Your task to perform on an android device: Open eBay Image 0: 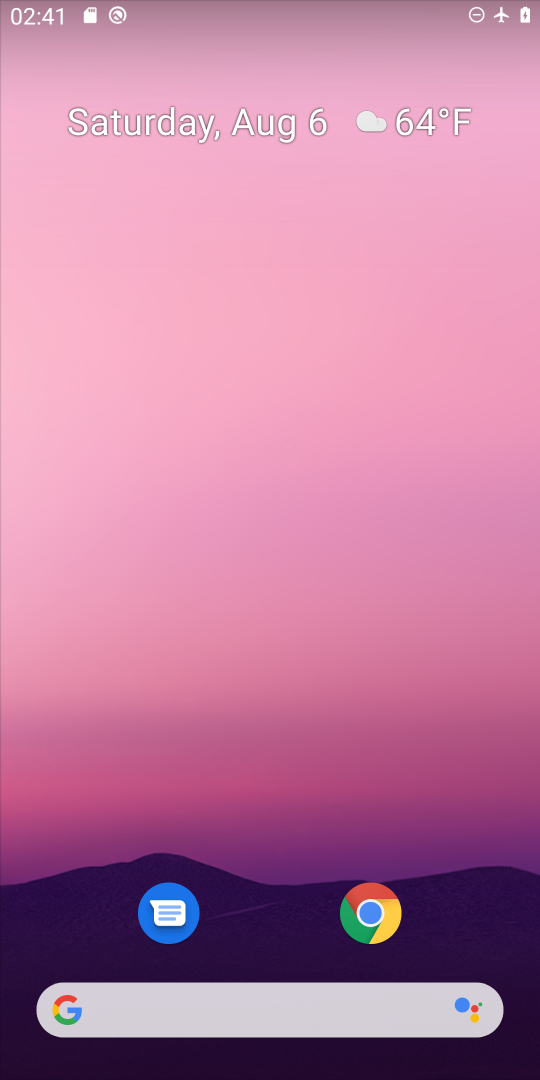
Step 0: press home button
Your task to perform on an android device: Open eBay Image 1: 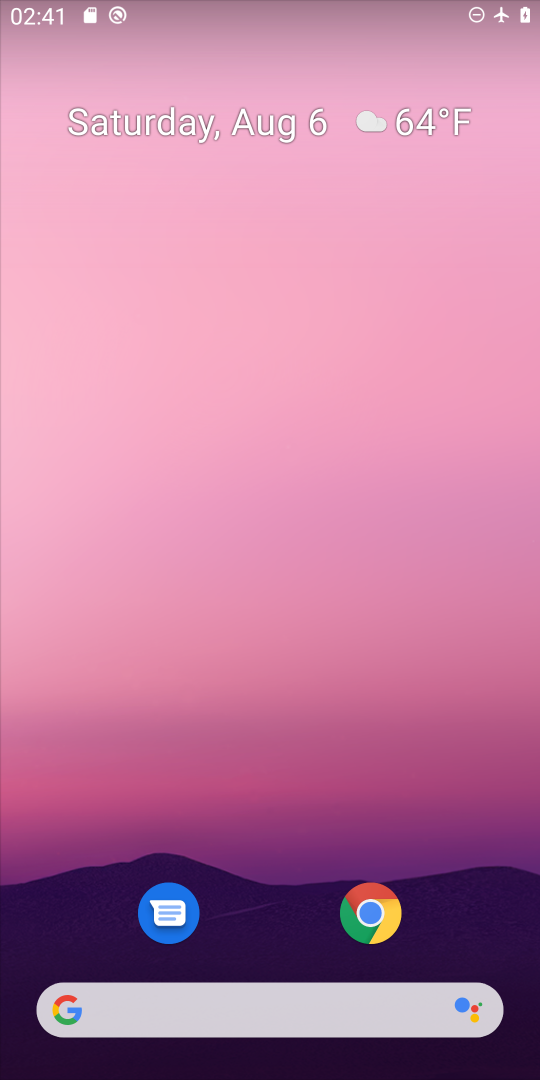
Step 1: drag from (458, 909) to (471, 310)
Your task to perform on an android device: Open eBay Image 2: 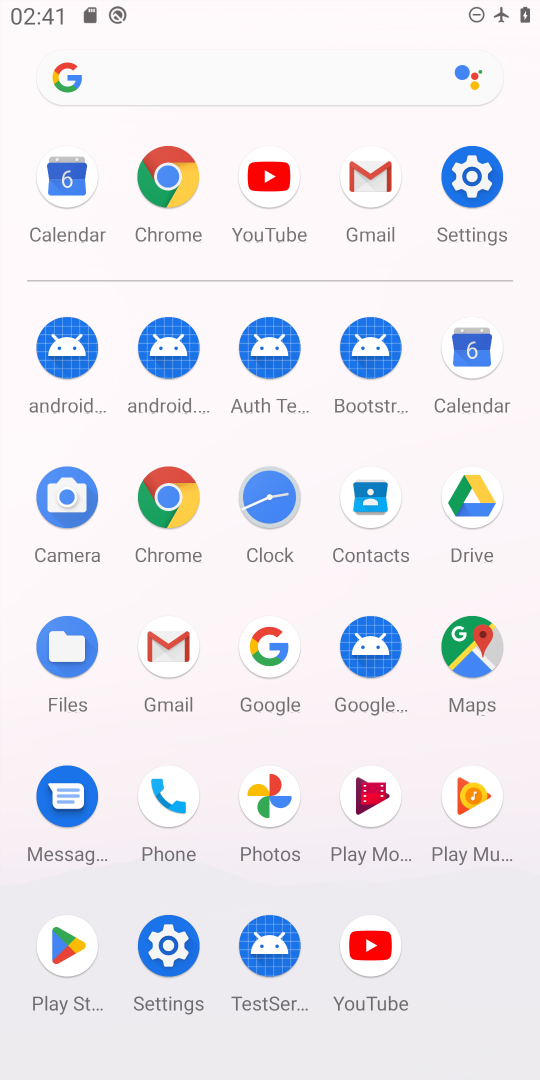
Step 2: click (169, 503)
Your task to perform on an android device: Open eBay Image 3: 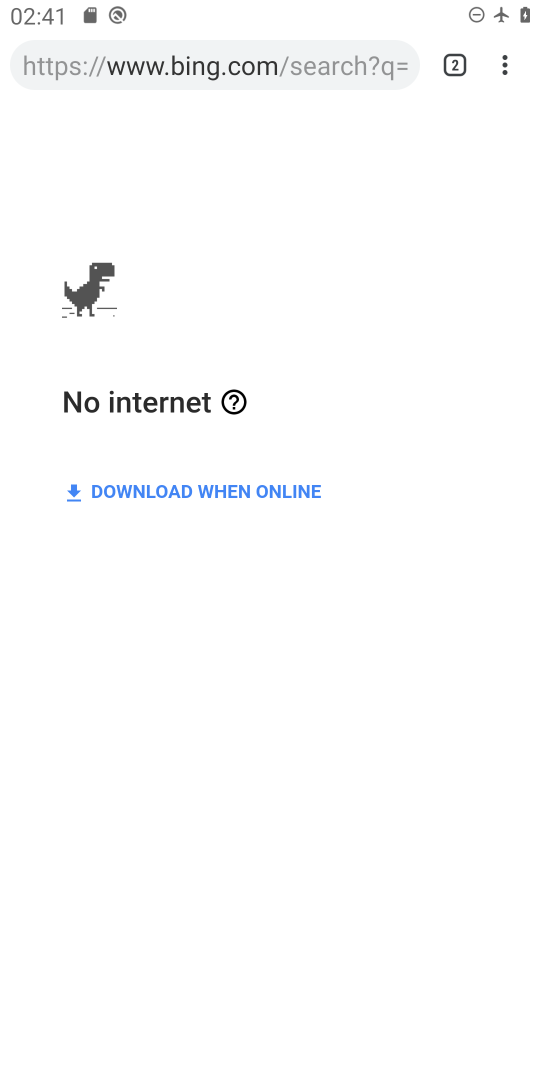
Step 3: click (261, 60)
Your task to perform on an android device: Open eBay Image 4: 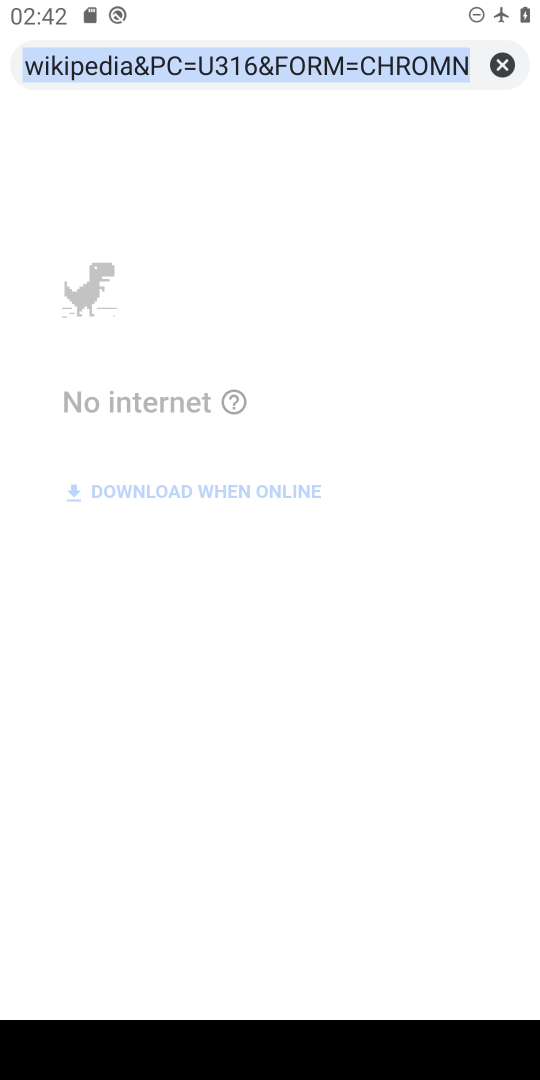
Step 4: type "ebay"
Your task to perform on an android device: Open eBay Image 5: 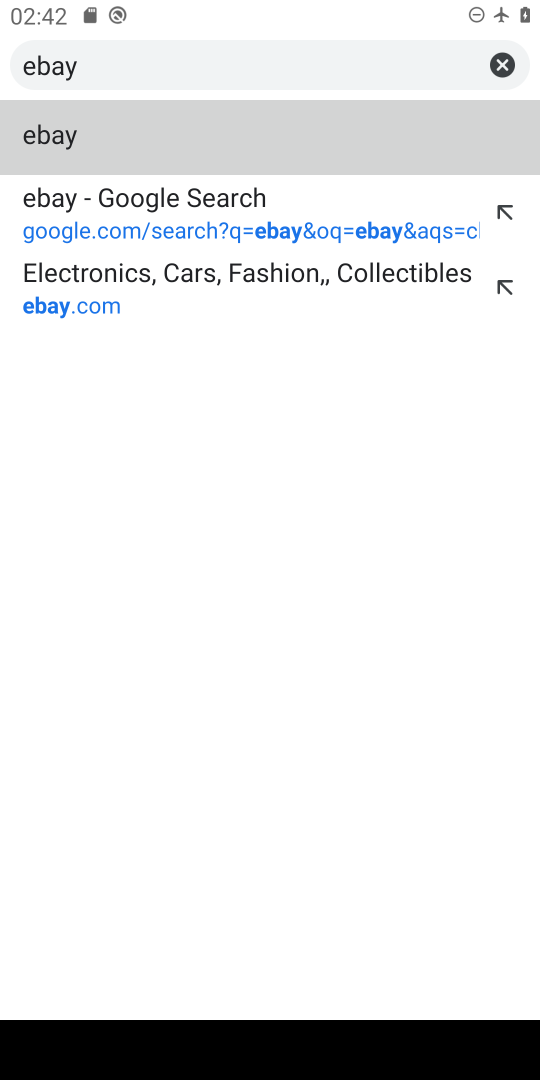
Step 5: click (392, 144)
Your task to perform on an android device: Open eBay Image 6: 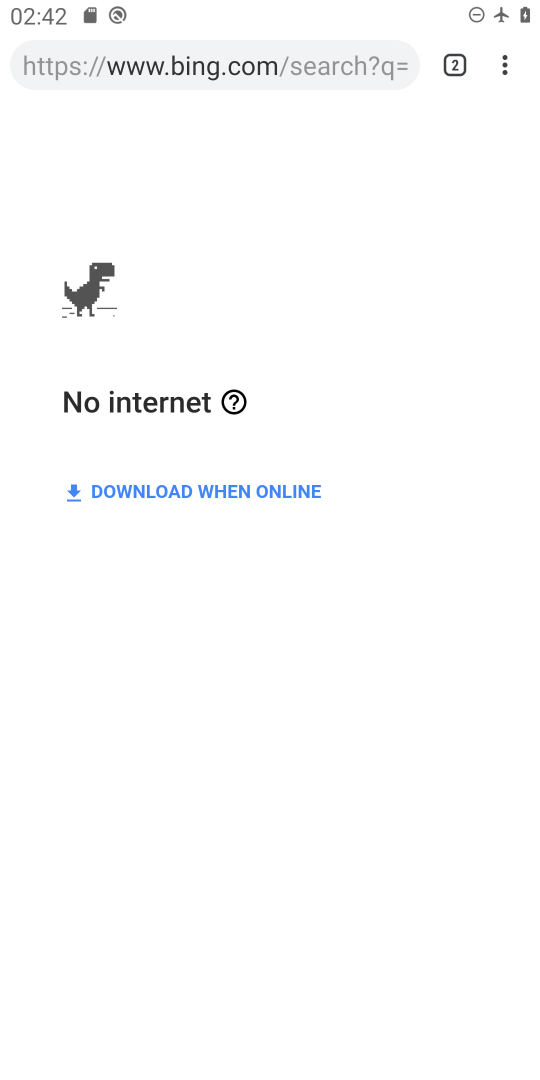
Step 6: task complete